Your task to perform on an android device: Clear the cart on target.com. Add jbl flip 4 to the cart on target.com Image 0: 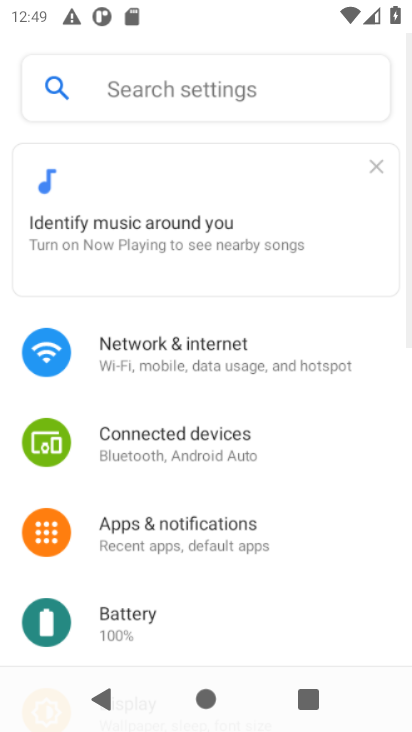
Step 0: click (270, 599)
Your task to perform on an android device: Clear the cart on target.com. Add jbl flip 4 to the cart on target.com Image 1: 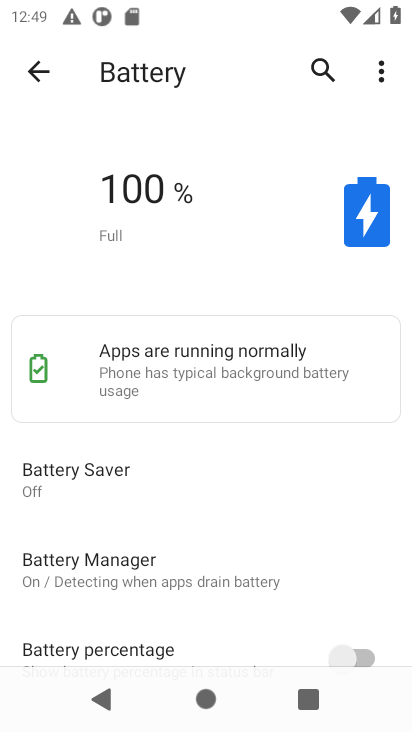
Step 1: press home button
Your task to perform on an android device: Clear the cart on target.com. Add jbl flip 4 to the cart on target.com Image 2: 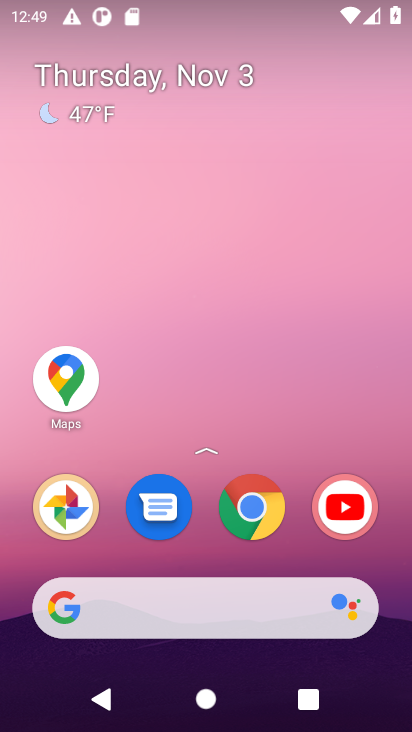
Step 2: click (230, 595)
Your task to perform on an android device: Clear the cart on target.com. Add jbl flip 4 to the cart on target.com Image 3: 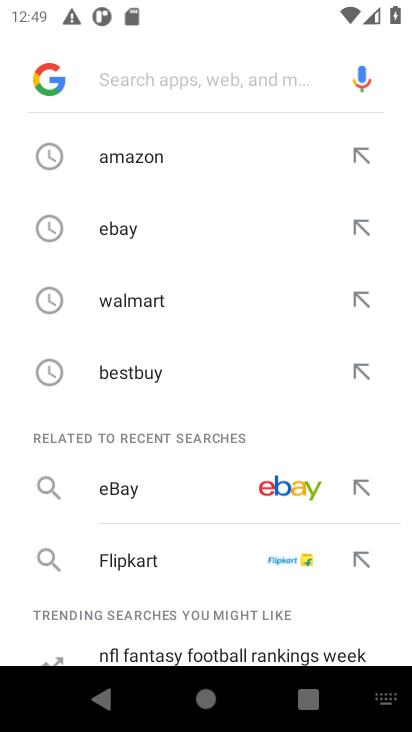
Step 3: type "target"
Your task to perform on an android device: Clear the cart on target.com. Add jbl flip 4 to the cart on target.com Image 4: 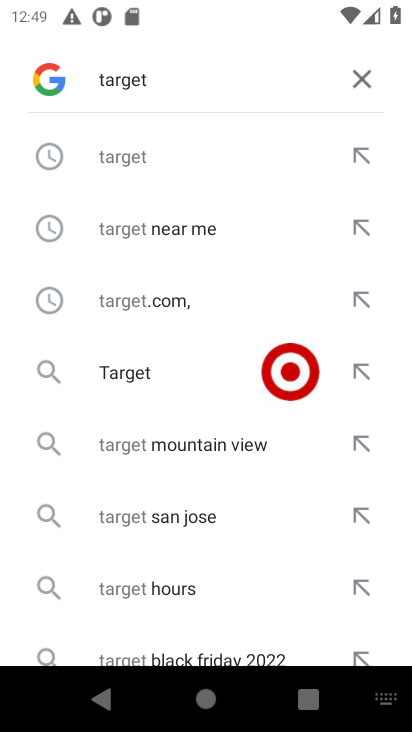
Step 4: click (150, 363)
Your task to perform on an android device: Clear the cart on target.com. Add jbl flip 4 to the cart on target.com Image 5: 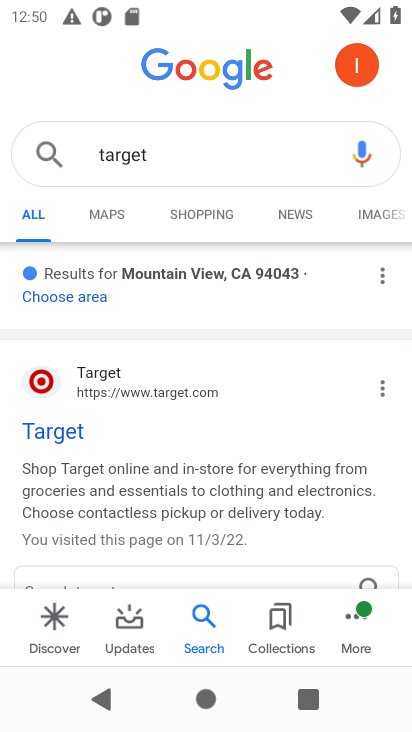
Step 5: click (57, 422)
Your task to perform on an android device: Clear the cart on target.com. Add jbl flip 4 to the cart on target.com Image 6: 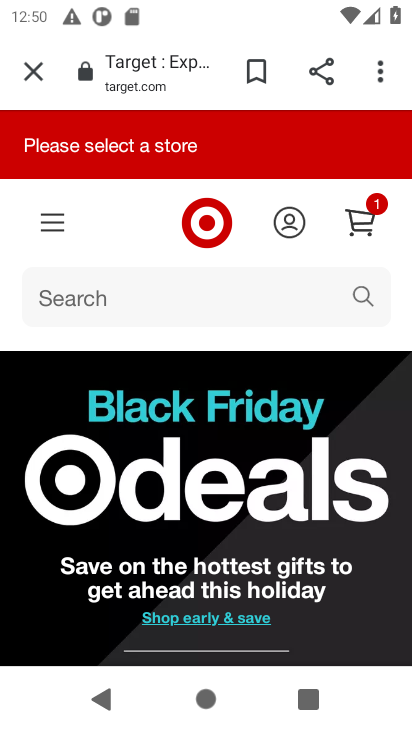
Step 6: click (77, 278)
Your task to perform on an android device: Clear the cart on target.com. Add jbl flip 4 to the cart on target.com Image 7: 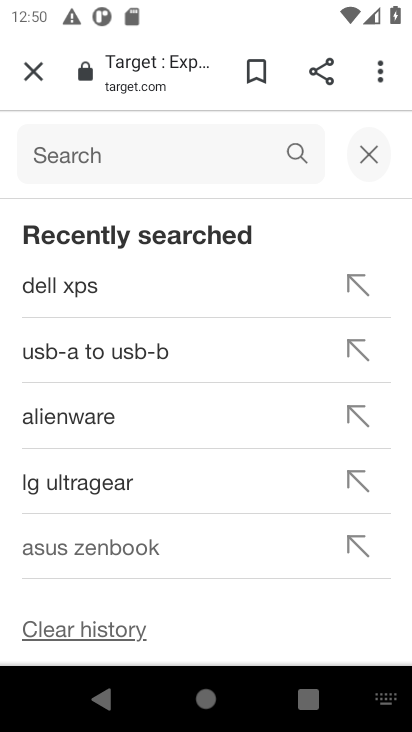
Step 7: type "jbl flip 4"
Your task to perform on an android device: Clear the cart on target.com. Add jbl flip 4 to the cart on target.com Image 8: 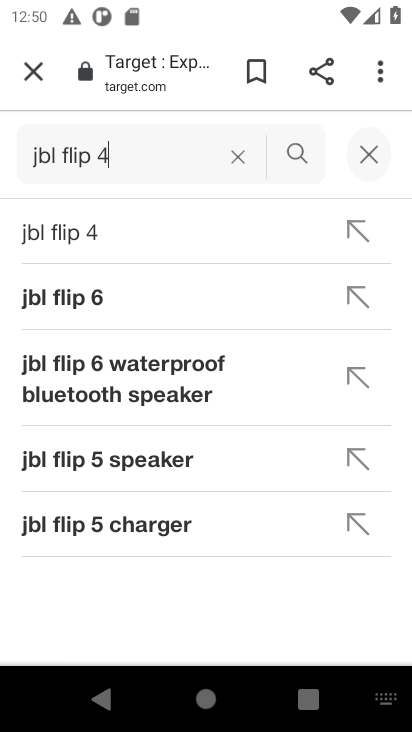
Step 8: click (255, 236)
Your task to perform on an android device: Clear the cart on target.com. Add jbl flip 4 to the cart on target.com Image 9: 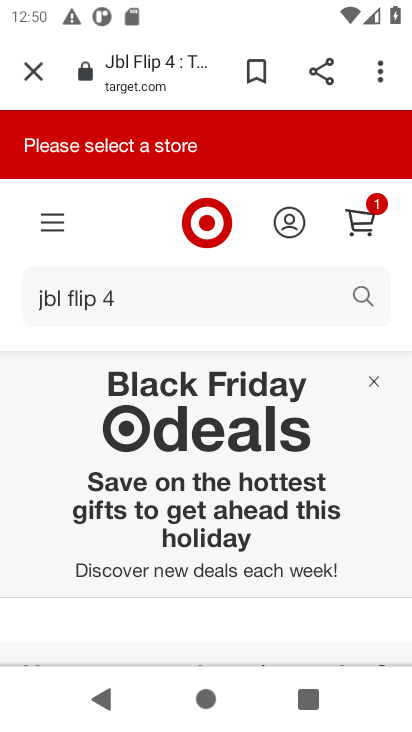
Step 9: click (371, 386)
Your task to perform on an android device: Clear the cart on target.com. Add jbl flip 4 to the cart on target.com Image 10: 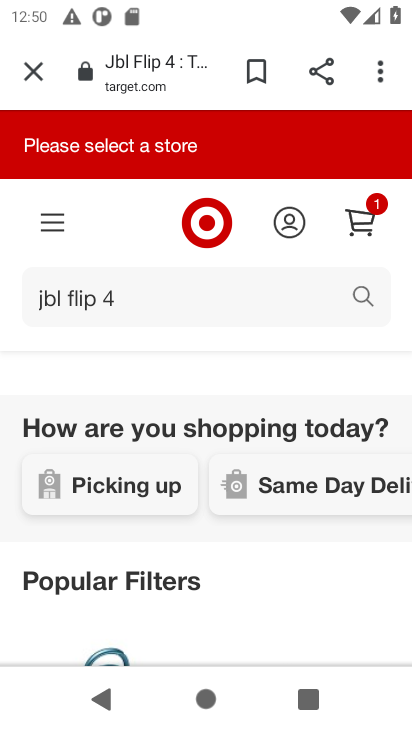
Step 10: drag from (282, 582) to (313, 274)
Your task to perform on an android device: Clear the cart on target.com. Add jbl flip 4 to the cart on target.com Image 11: 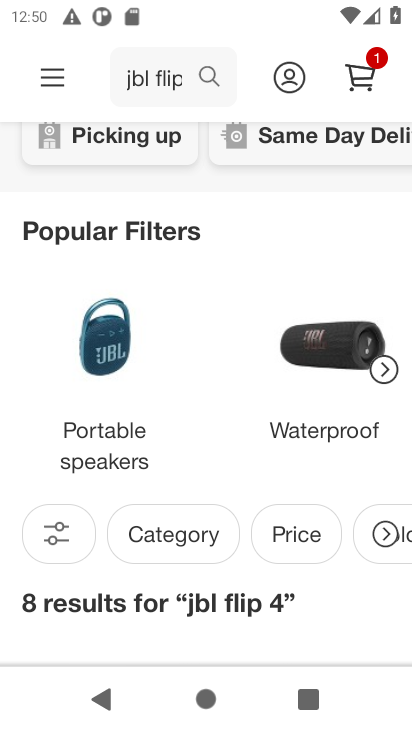
Step 11: click (78, 465)
Your task to perform on an android device: Clear the cart on target.com. Add jbl flip 4 to the cart on target.com Image 12: 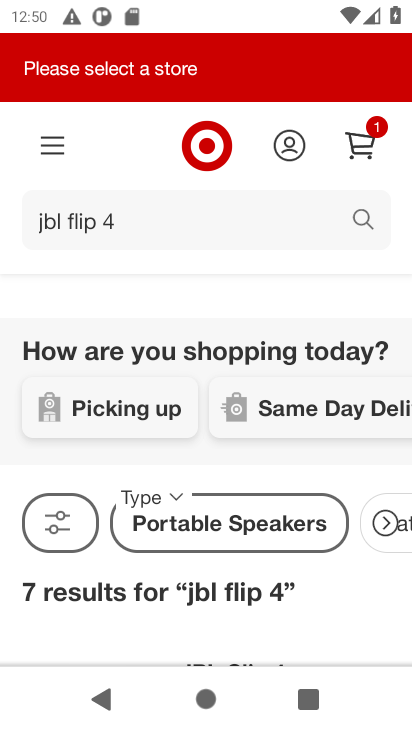
Step 12: drag from (157, 485) to (163, 4)
Your task to perform on an android device: Clear the cart on target.com. Add jbl flip 4 to the cart on target.com Image 13: 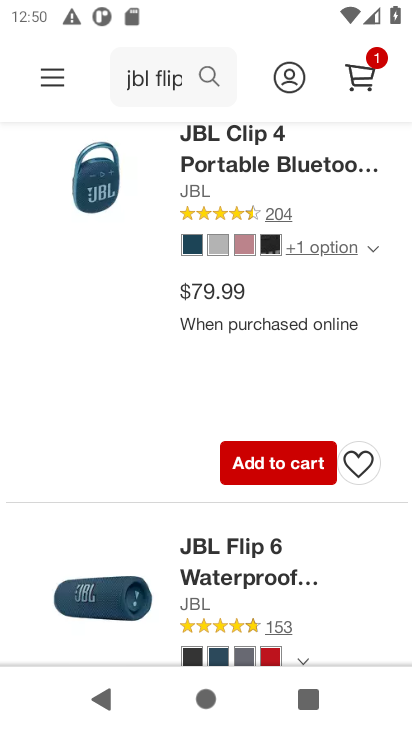
Step 13: click (278, 449)
Your task to perform on an android device: Clear the cart on target.com. Add jbl flip 4 to the cart on target.com Image 14: 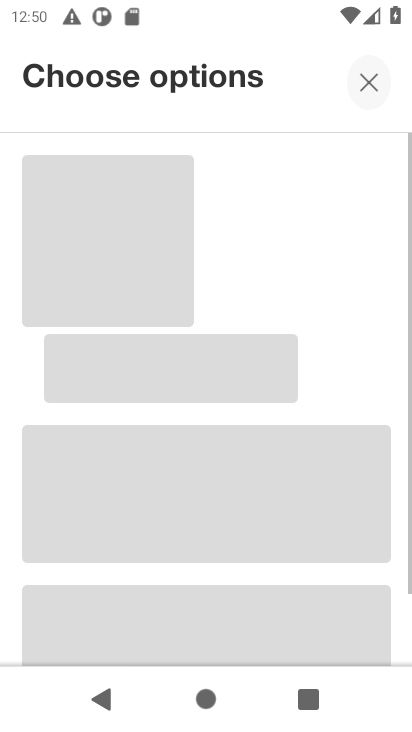
Step 14: task complete